Your task to perform on an android device: Go to Reddit.com Image 0: 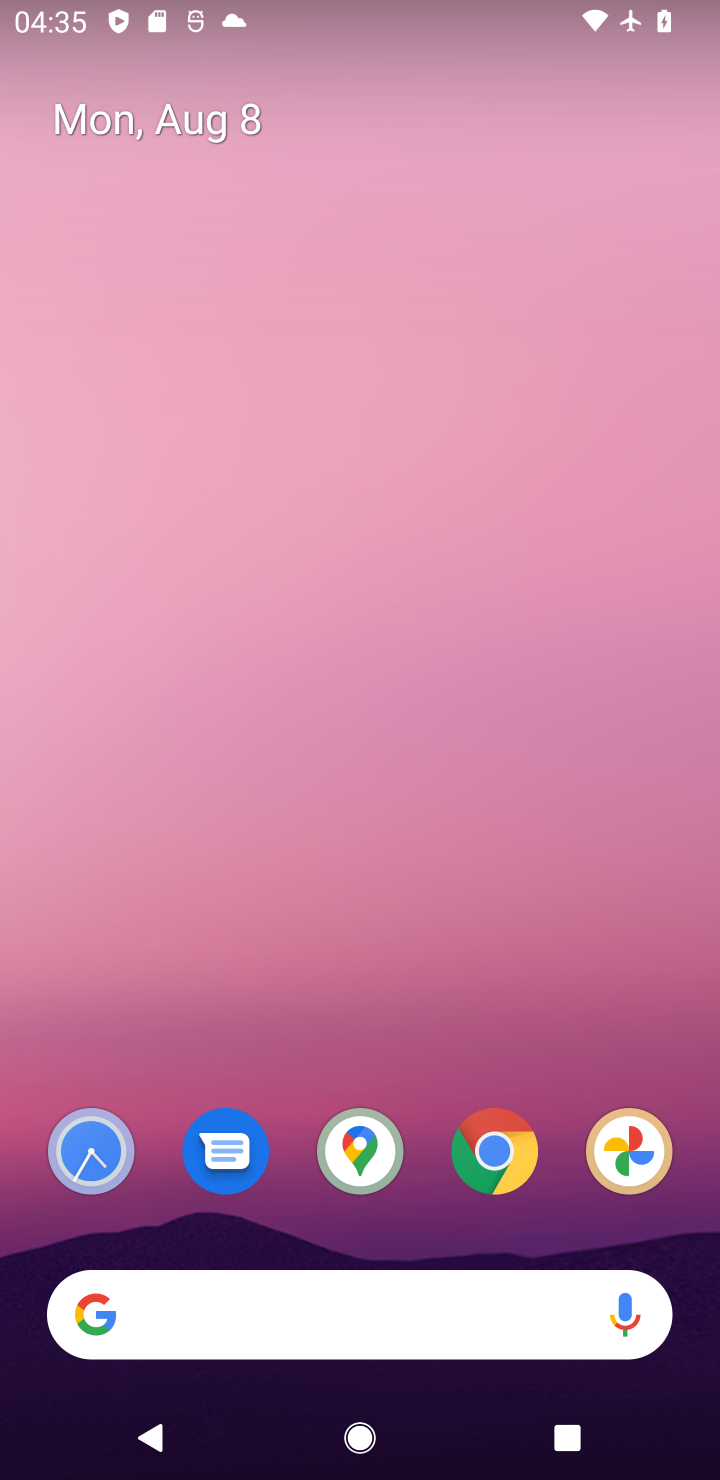
Step 0: click (496, 1172)
Your task to perform on an android device: Go to Reddit.com Image 1: 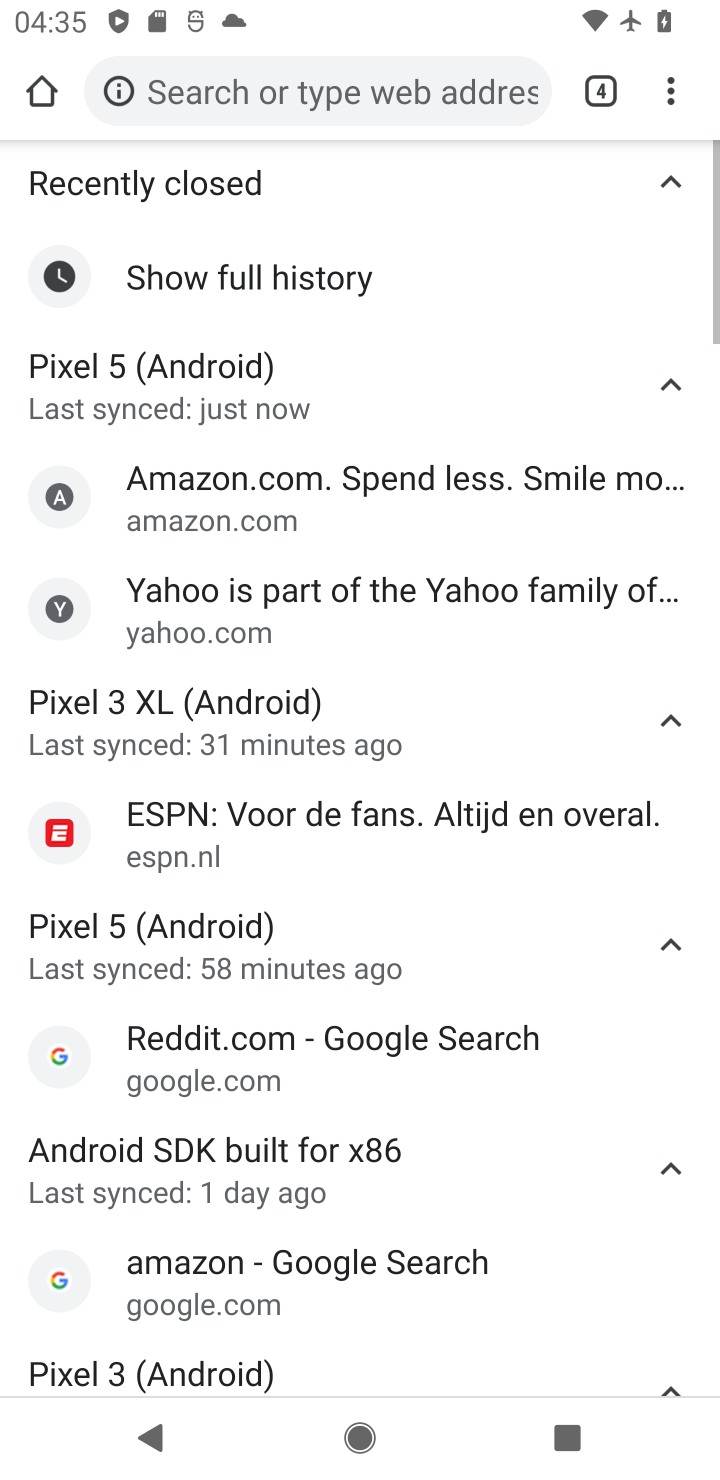
Step 1: click (414, 83)
Your task to perform on an android device: Go to Reddit.com Image 2: 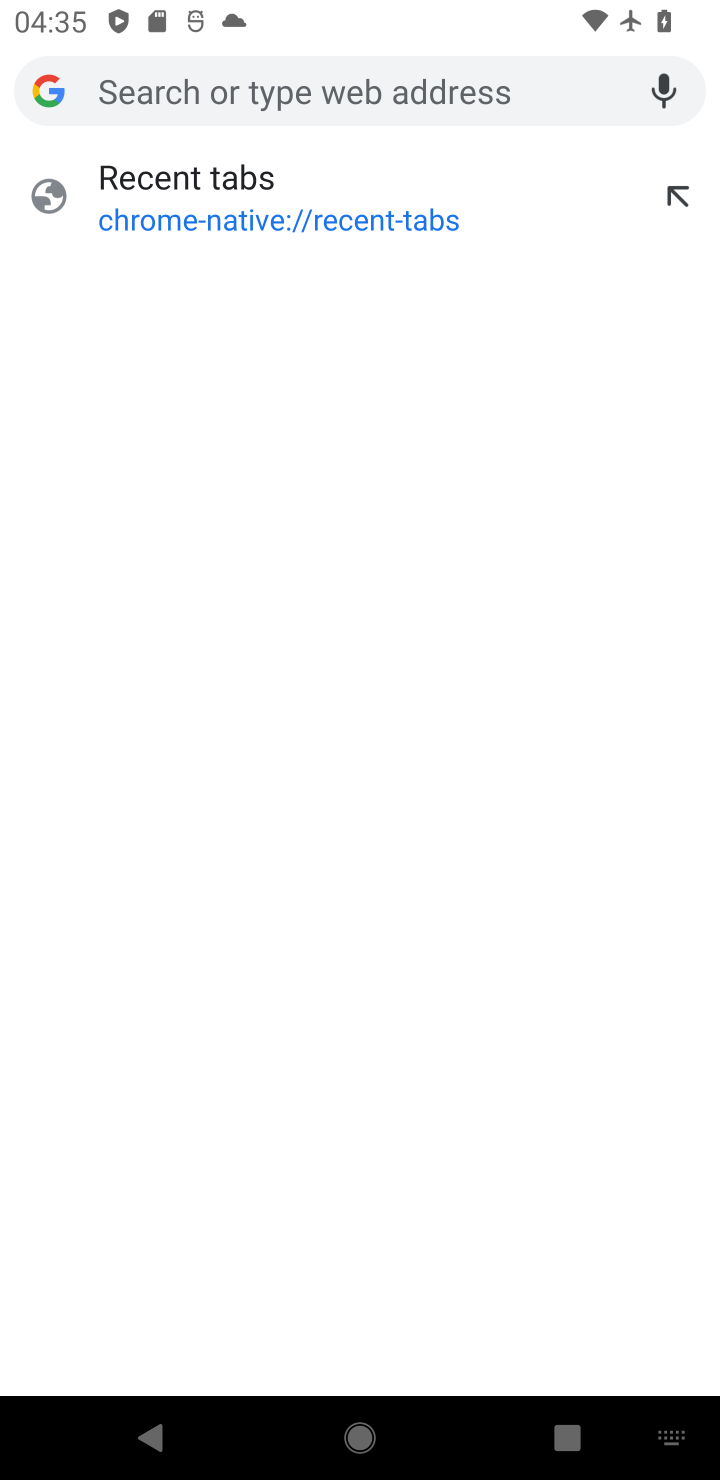
Step 2: type "Reddit.com"
Your task to perform on an android device: Go to Reddit.com Image 3: 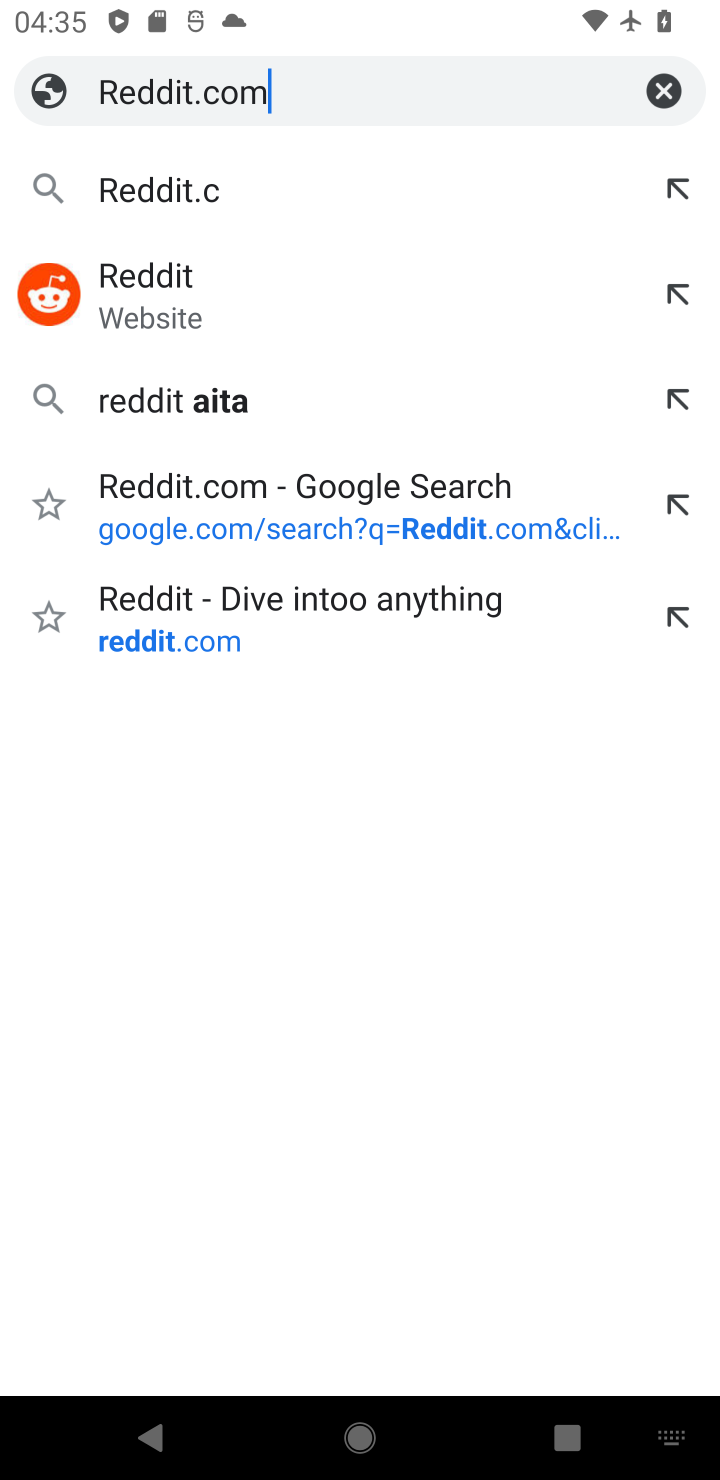
Step 3: type ""
Your task to perform on an android device: Go to Reddit.com Image 4: 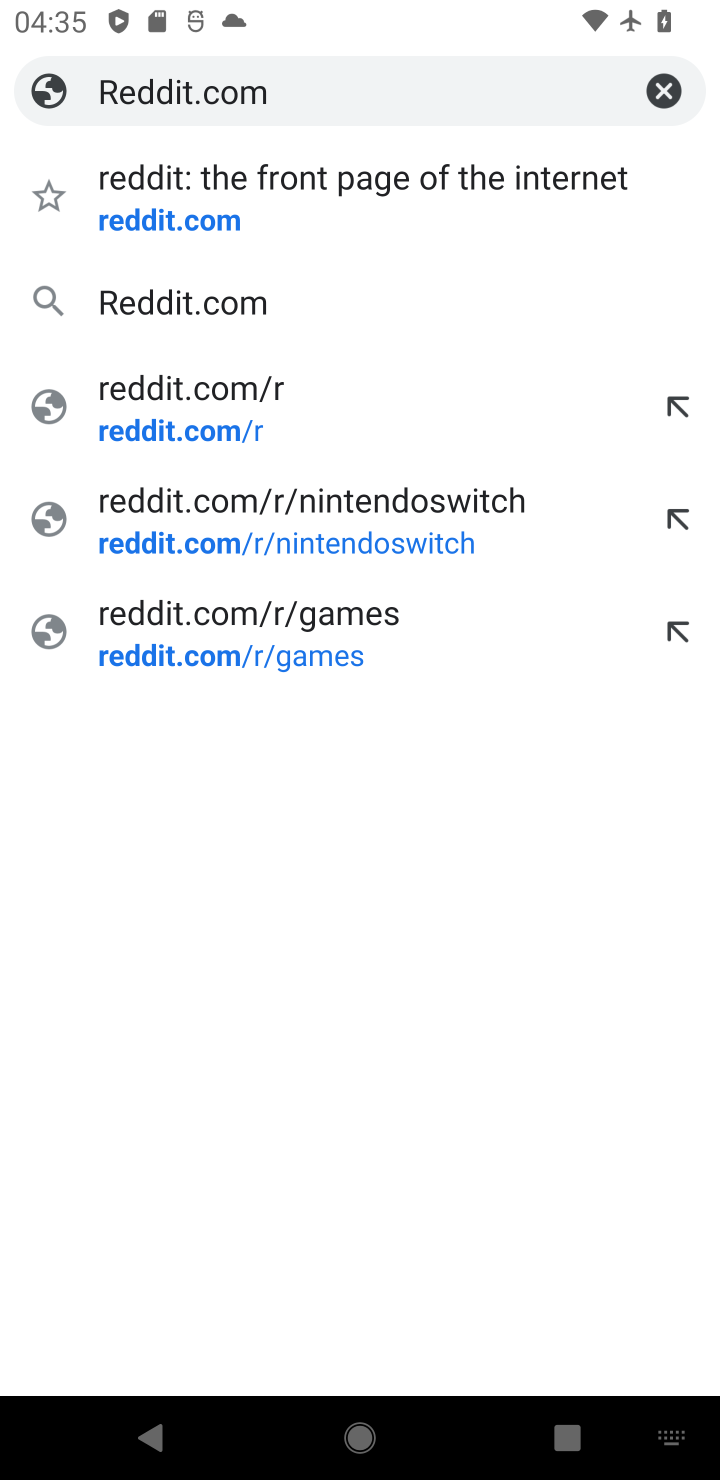
Step 4: click (291, 408)
Your task to perform on an android device: Go to Reddit.com Image 5: 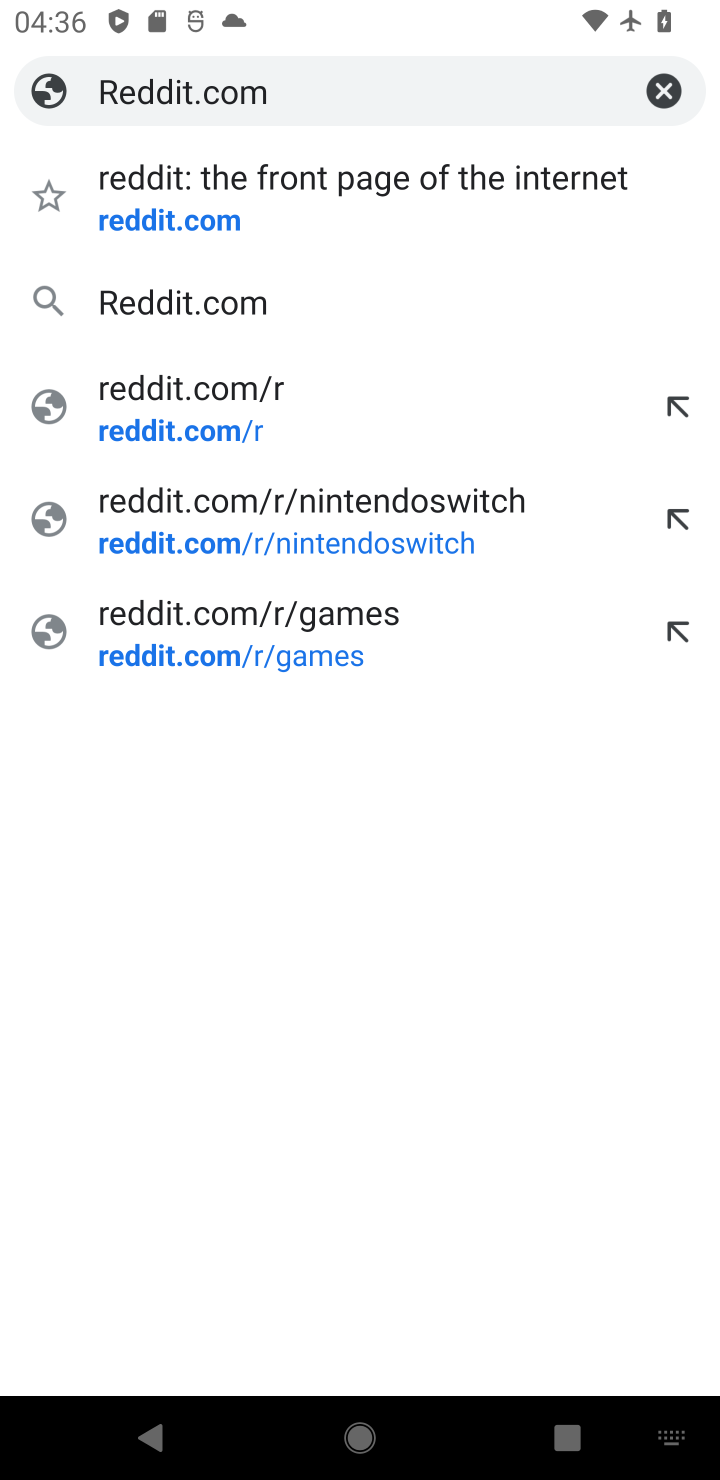
Step 5: click (256, 381)
Your task to perform on an android device: Go to Reddit.com Image 6: 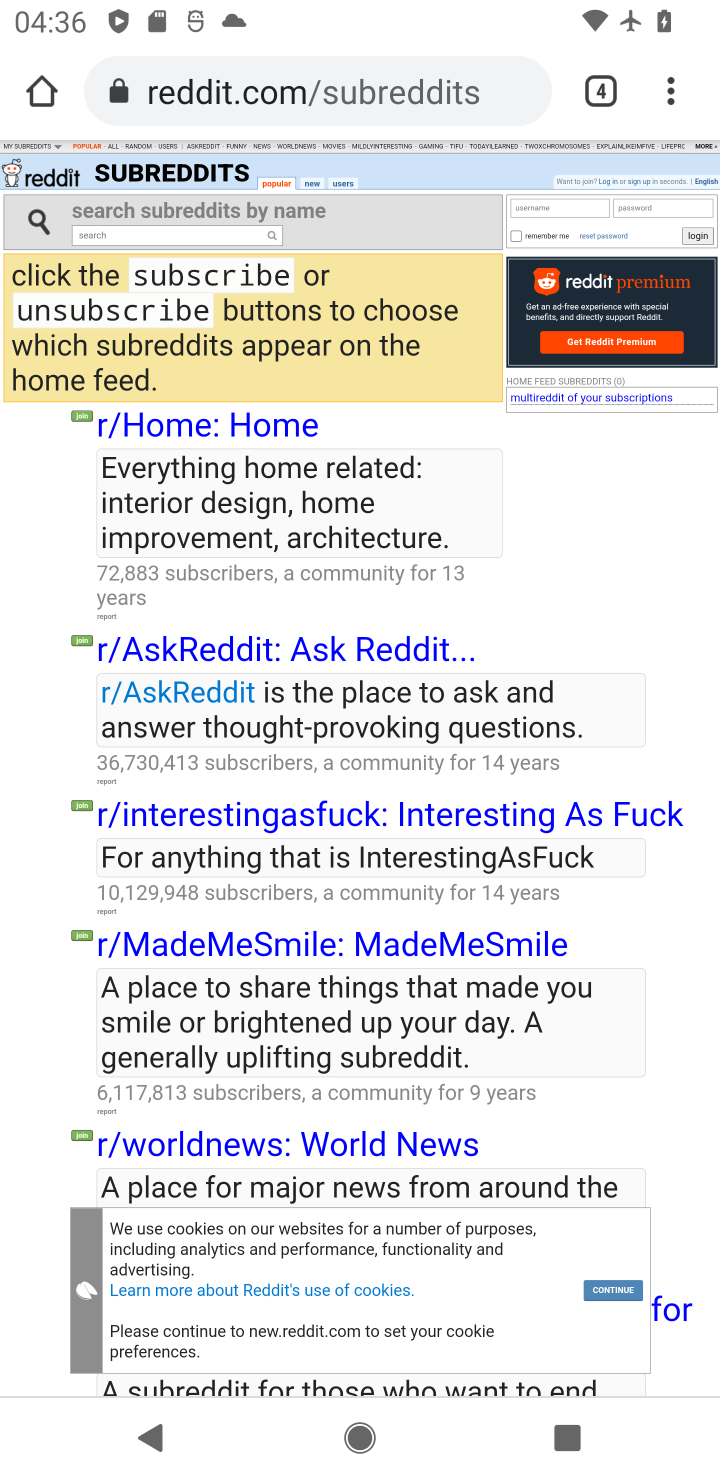
Step 6: task complete